Your task to perform on an android device: Open internet settings Image 0: 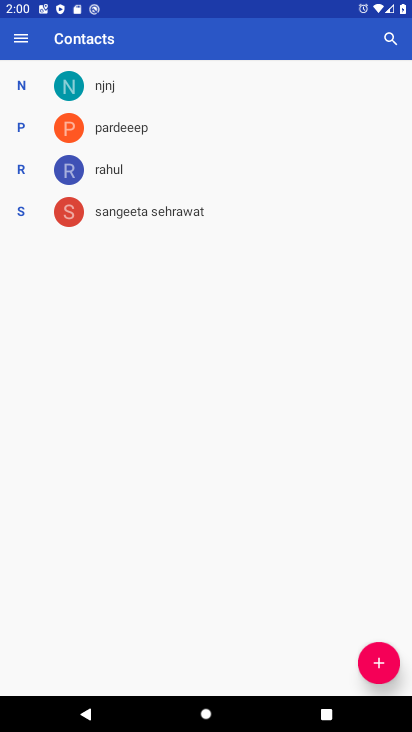
Step 0: drag from (187, 6) to (166, 577)
Your task to perform on an android device: Open internet settings Image 1: 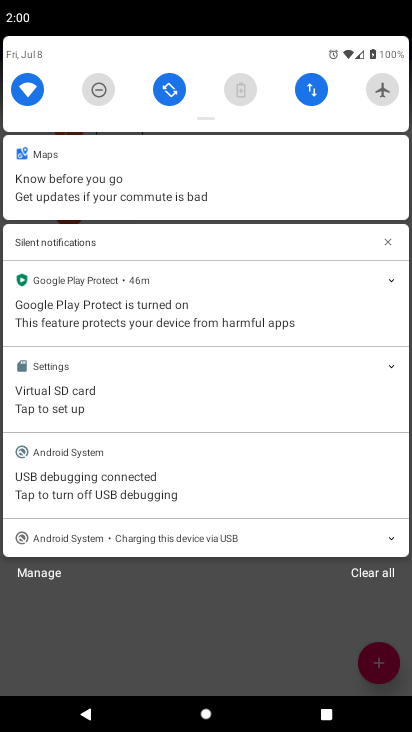
Step 1: click (312, 90)
Your task to perform on an android device: Open internet settings Image 2: 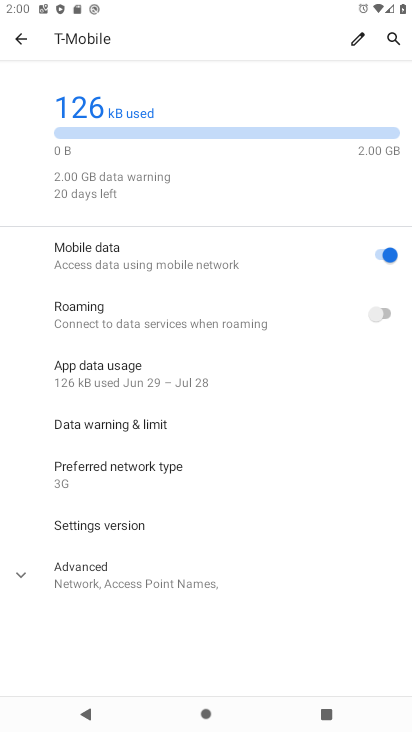
Step 2: task complete